Your task to perform on an android device: change the upload size in google photos Image 0: 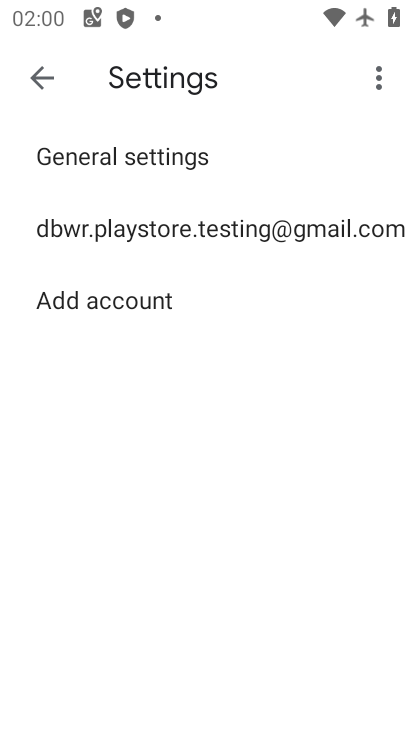
Step 0: press home button
Your task to perform on an android device: change the upload size in google photos Image 1: 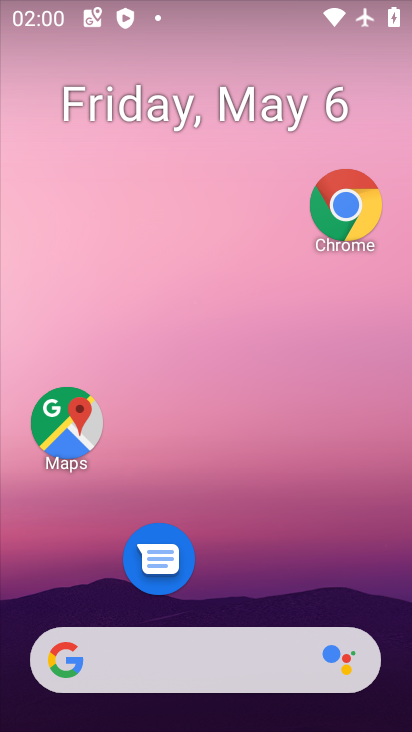
Step 1: drag from (211, 658) to (316, 99)
Your task to perform on an android device: change the upload size in google photos Image 2: 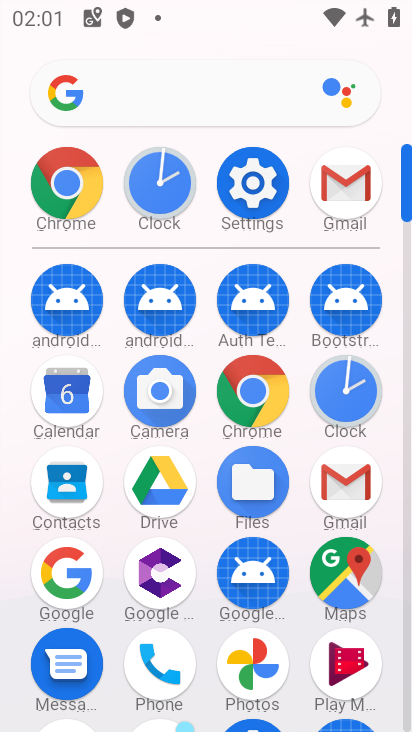
Step 2: click (249, 661)
Your task to perform on an android device: change the upload size in google photos Image 3: 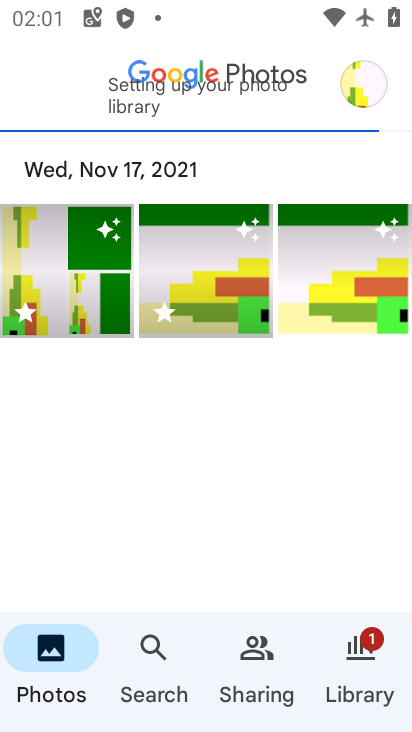
Step 3: click (361, 91)
Your task to perform on an android device: change the upload size in google photos Image 4: 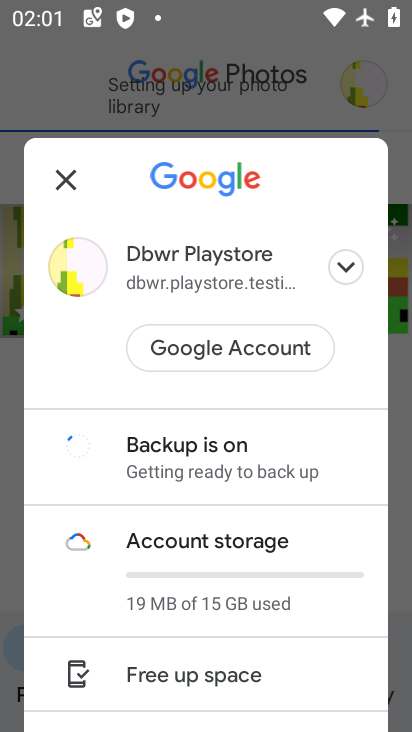
Step 4: drag from (203, 659) to (319, 277)
Your task to perform on an android device: change the upload size in google photos Image 5: 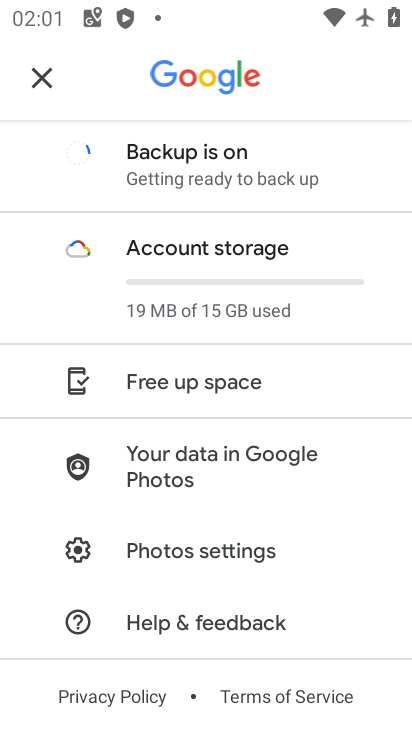
Step 5: click (164, 555)
Your task to perform on an android device: change the upload size in google photos Image 6: 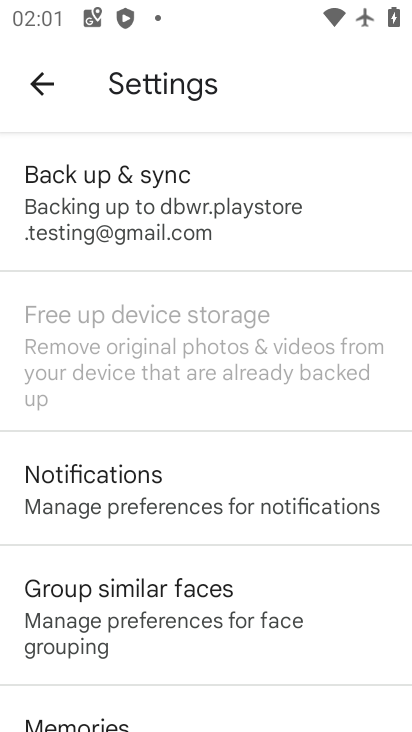
Step 6: click (212, 221)
Your task to perform on an android device: change the upload size in google photos Image 7: 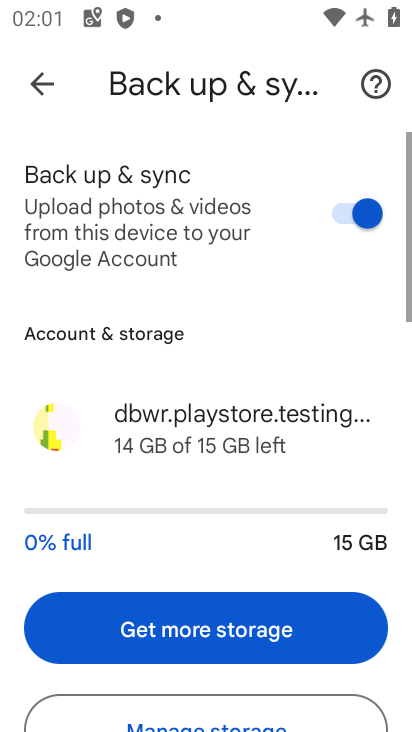
Step 7: drag from (147, 555) to (311, 162)
Your task to perform on an android device: change the upload size in google photos Image 8: 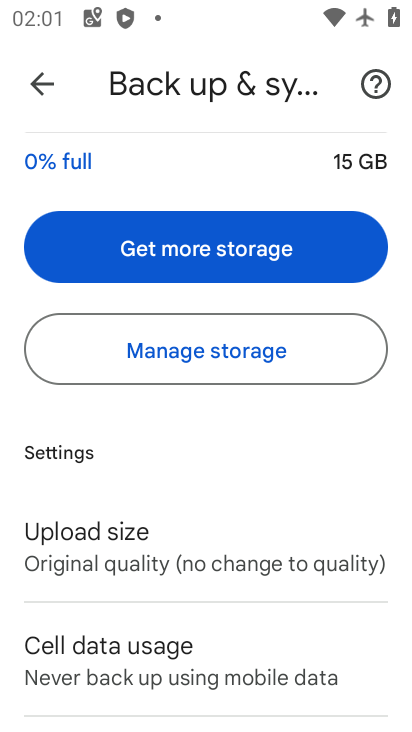
Step 8: click (133, 545)
Your task to perform on an android device: change the upload size in google photos Image 9: 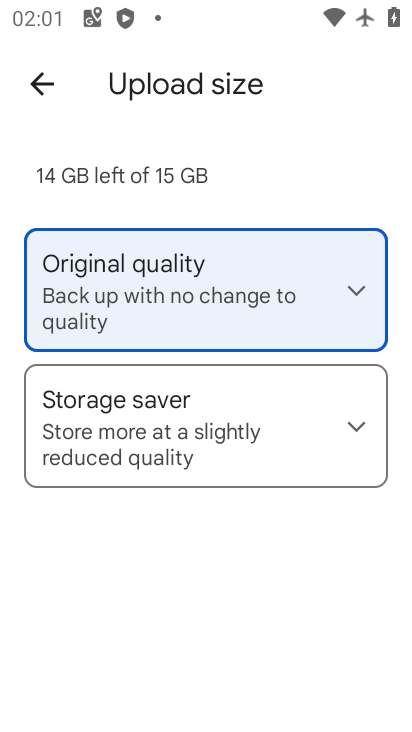
Step 9: click (347, 423)
Your task to perform on an android device: change the upload size in google photos Image 10: 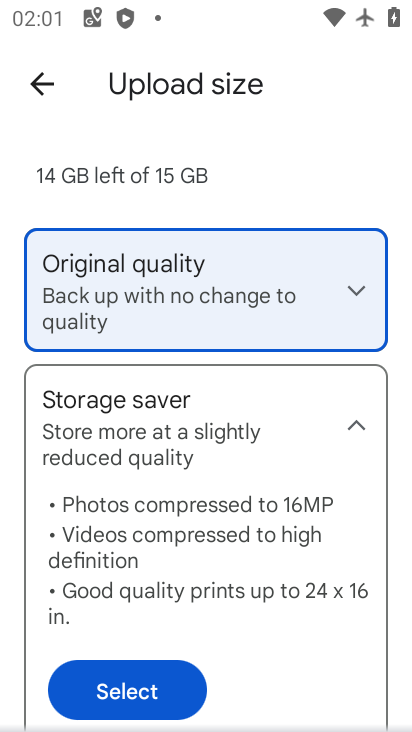
Step 10: click (113, 695)
Your task to perform on an android device: change the upload size in google photos Image 11: 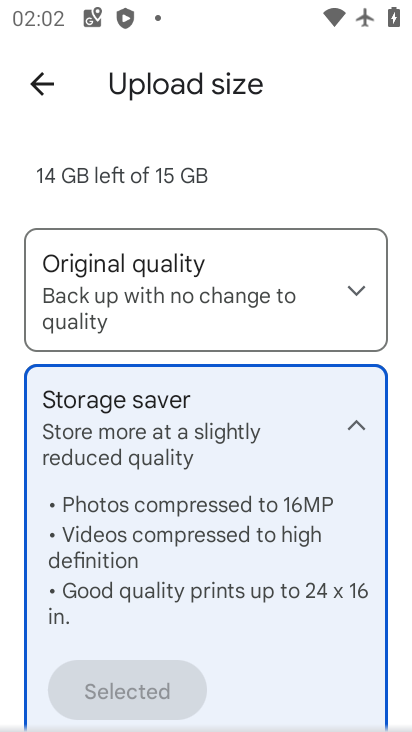
Step 11: task complete